Your task to perform on an android device: delete location history Image 0: 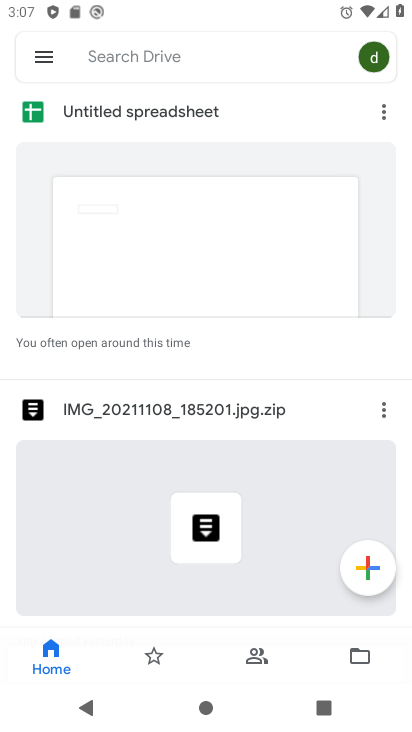
Step 0: press back button
Your task to perform on an android device: delete location history Image 1: 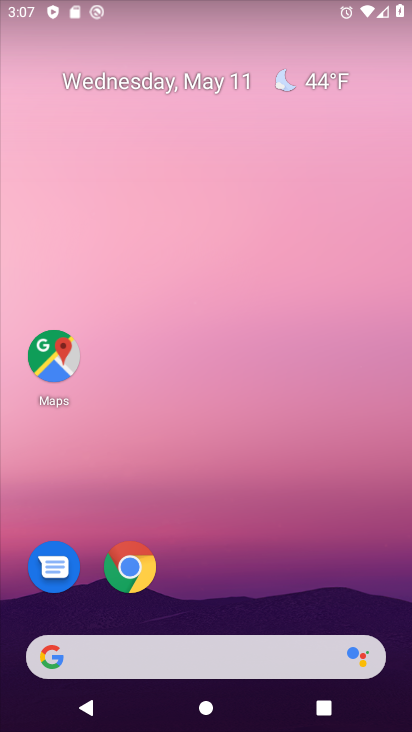
Step 1: drag from (260, 541) to (256, 53)
Your task to perform on an android device: delete location history Image 2: 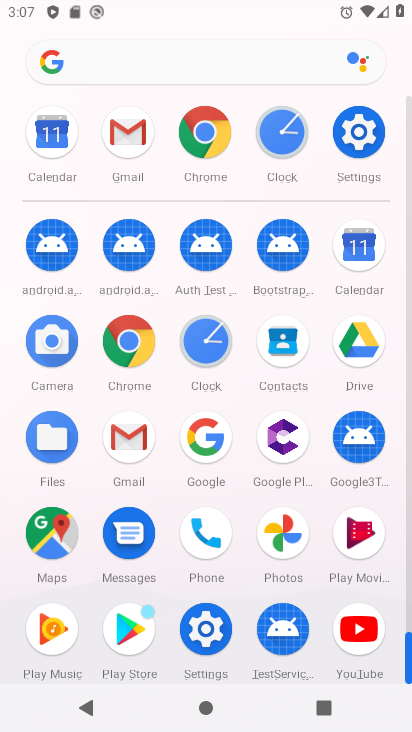
Step 2: drag from (5, 562) to (22, 142)
Your task to perform on an android device: delete location history Image 3: 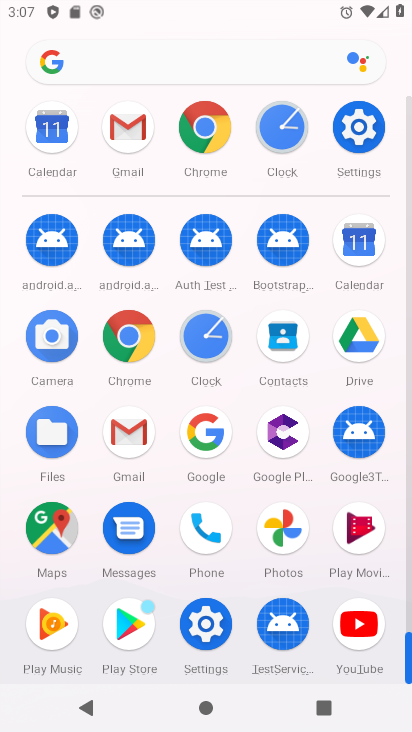
Step 3: click (201, 618)
Your task to perform on an android device: delete location history Image 4: 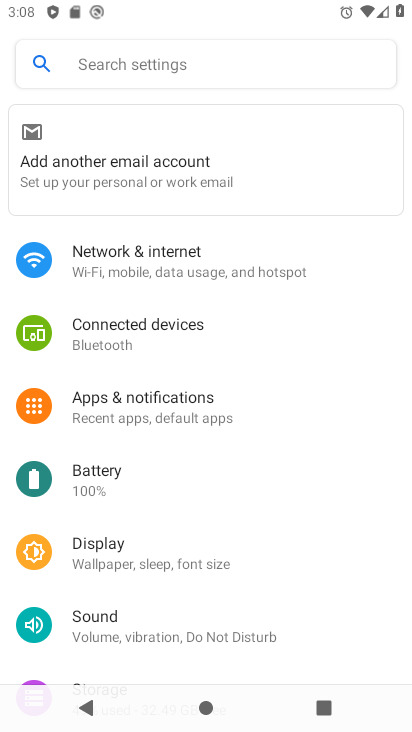
Step 4: drag from (205, 597) to (236, 164)
Your task to perform on an android device: delete location history Image 5: 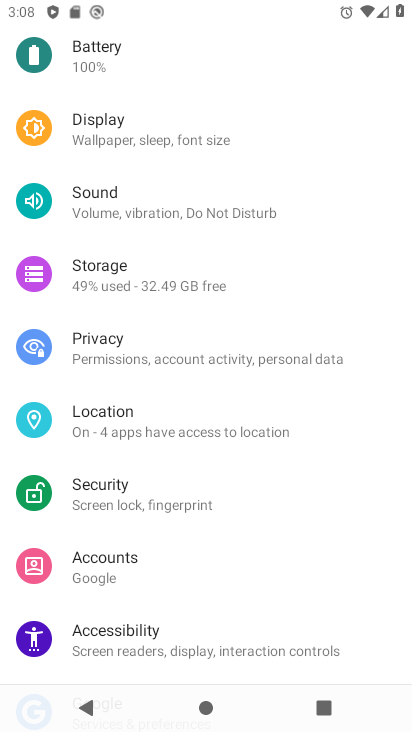
Step 5: click (159, 424)
Your task to perform on an android device: delete location history Image 6: 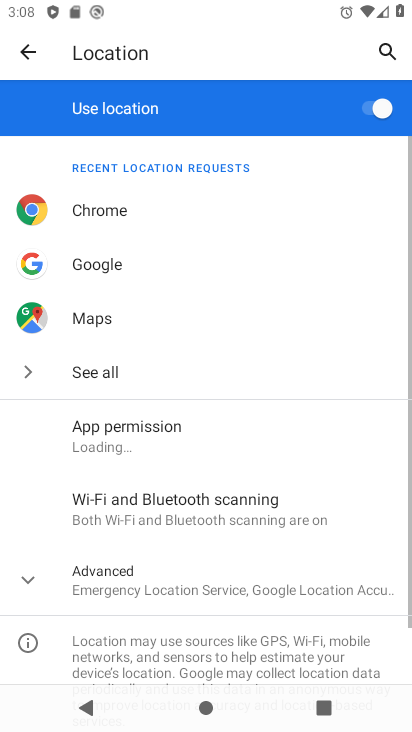
Step 6: drag from (207, 610) to (253, 131)
Your task to perform on an android device: delete location history Image 7: 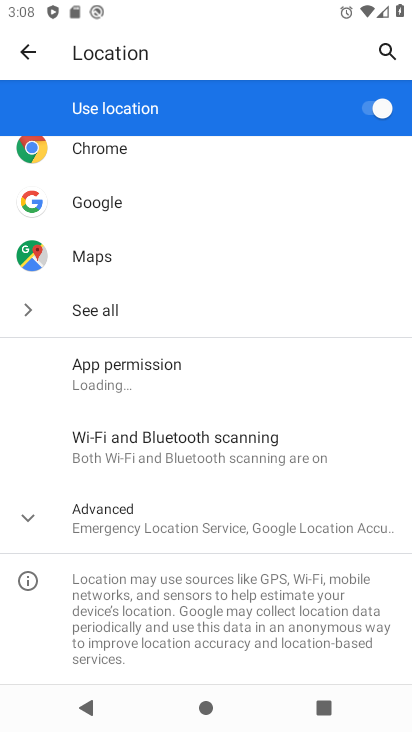
Step 7: click (44, 508)
Your task to perform on an android device: delete location history Image 8: 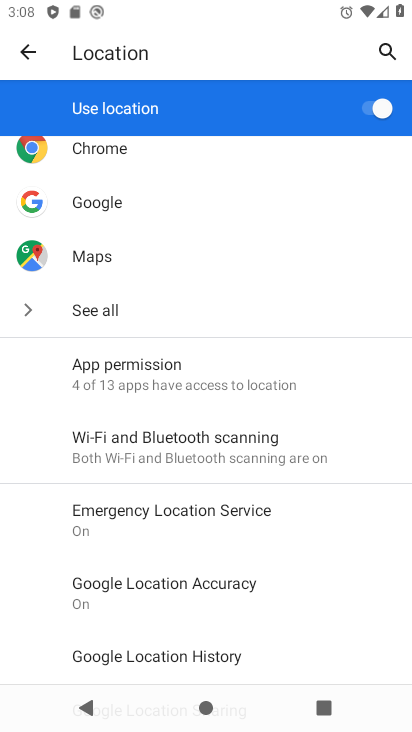
Step 8: drag from (247, 606) to (244, 233)
Your task to perform on an android device: delete location history Image 9: 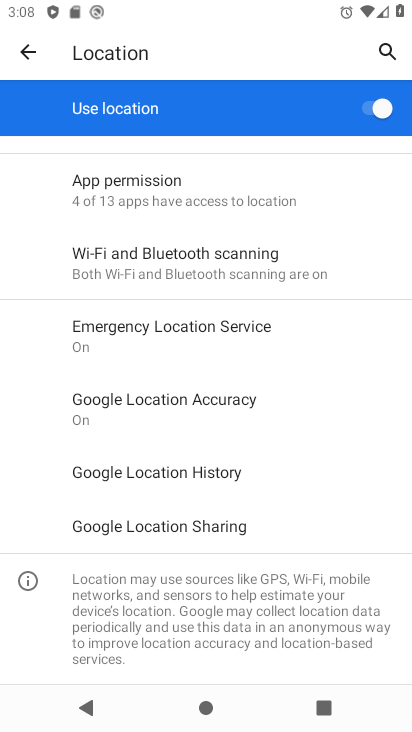
Step 9: click (198, 477)
Your task to perform on an android device: delete location history Image 10: 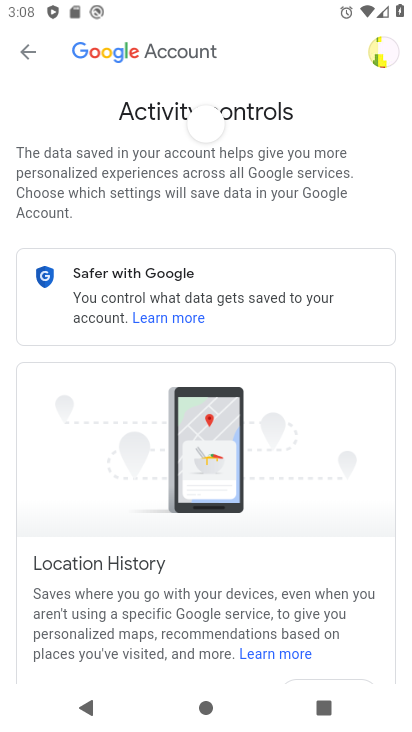
Step 10: drag from (123, 577) to (126, 113)
Your task to perform on an android device: delete location history Image 11: 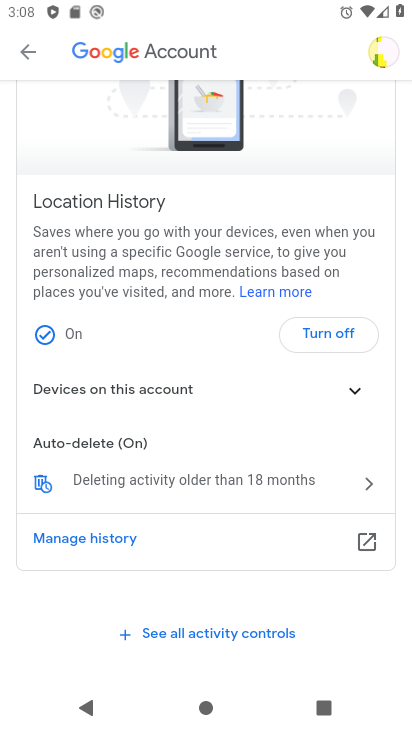
Step 11: drag from (90, 583) to (108, 269)
Your task to perform on an android device: delete location history Image 12: 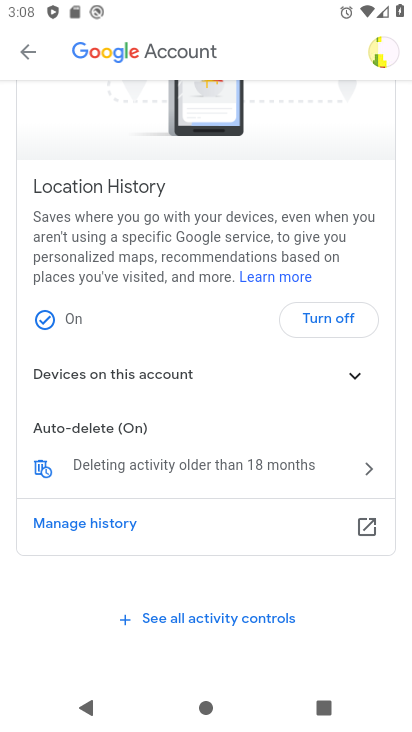
Step 12: click (114, 457)
Your task to perform on an android device: delete location history Image 13: 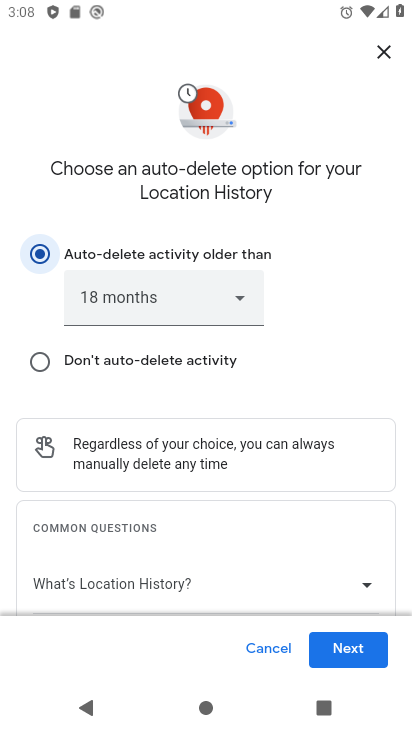
Step 13: click (331, 641)
Your task to perform on an android device: delete location history Image 14: 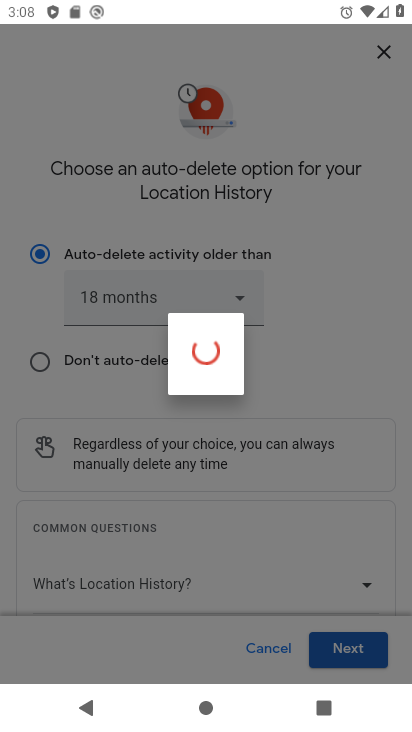
Step 14: click (332, 655)
Your task to perform on an android device: delete location history Image 15: 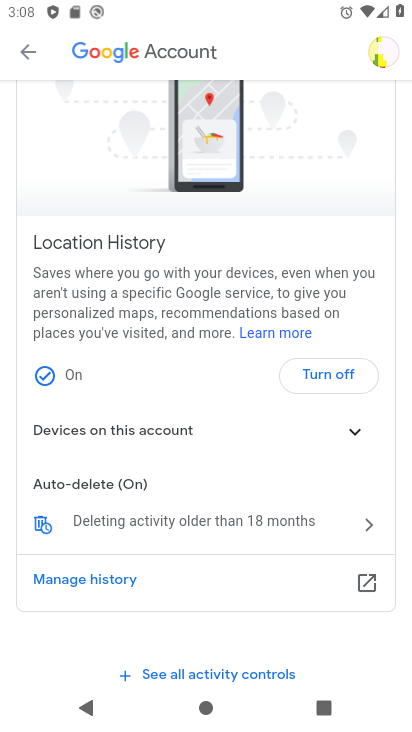
Step 15: task complete